Your task to perform on an android device: move a message to another label in the gmail app Image 0: 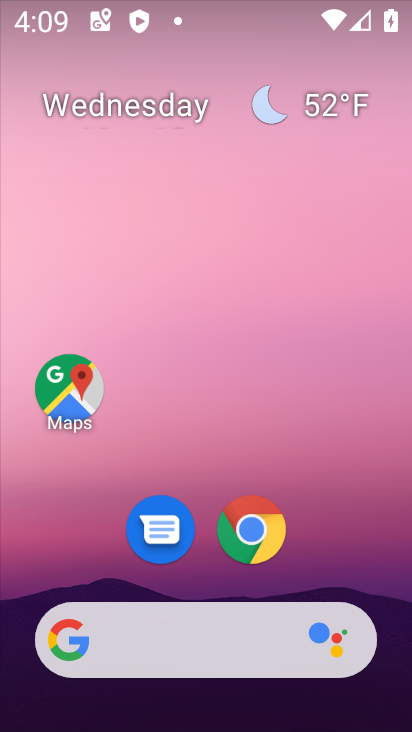
Step 0: drag from (325, 556) to (159, 143)
Your task to perform on an android device: move a message to another label in the gmail app Image 1: 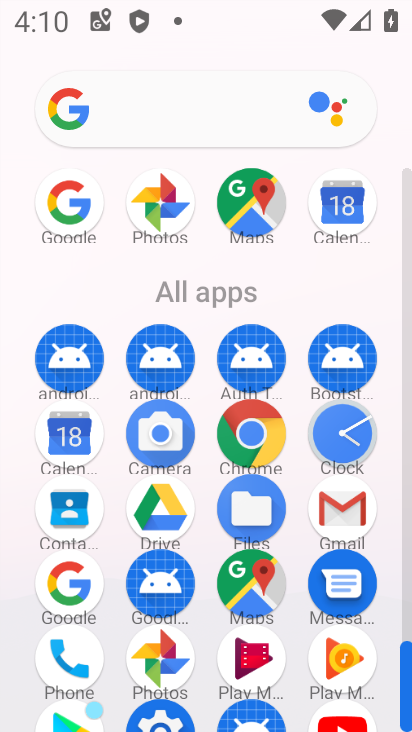
Step 1: drag from (211, 539) to (218, 343)
Your task to perform on an android device: move a message to another label in the gmail app Image 2: 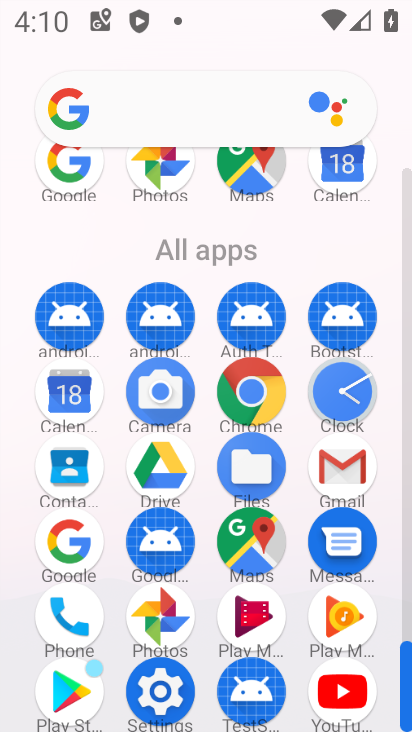
Step 2: click (342, 463)
Your task to perform on an android device: move a message to another label in the gmail app Image 3: 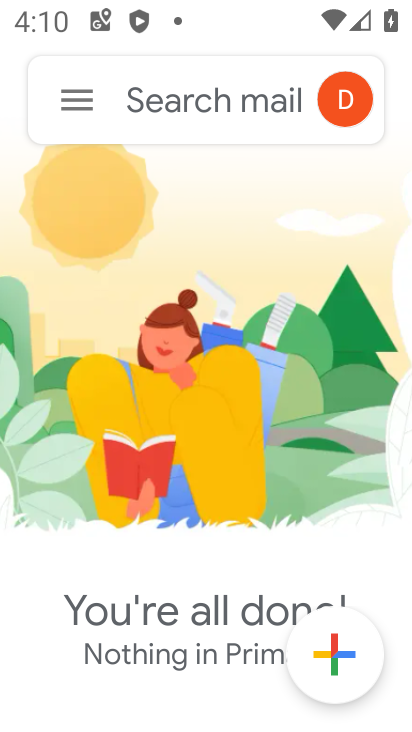
Step 3: click (76, 107)
Your task to perform on an android device: move a message to another label in the gmail app Image 4: 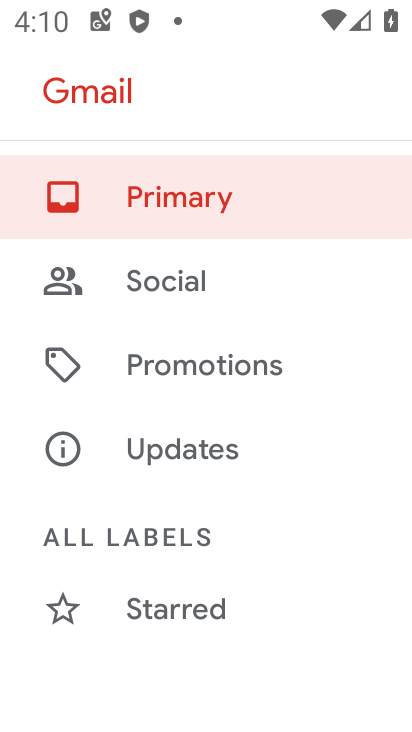
Step 4: drag from (191, 427) to (238, 304)
Your task to perform on an android device: move a message to another label in the gmail app Image 5: 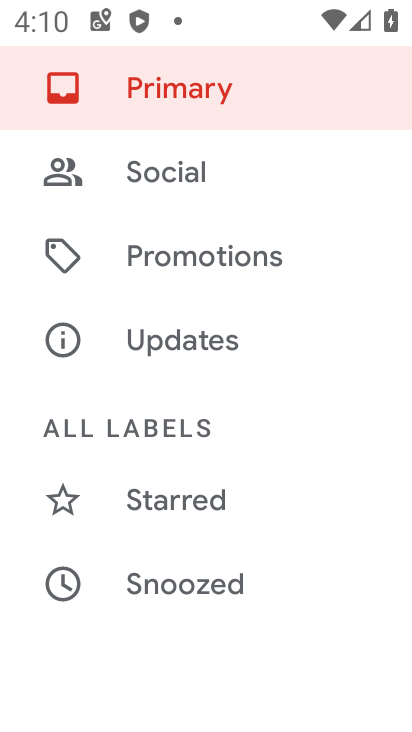
Step 5: drag from (178, 483) to (210, 421)
Your task to perform on an android device: move a message to another label in the gmail app Image 6: 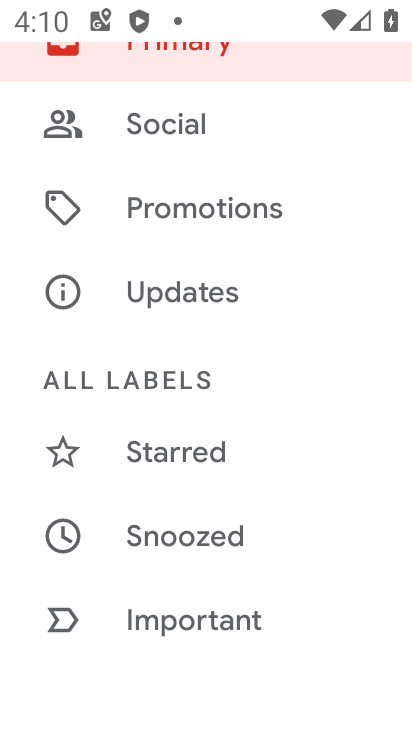
Step 6: drag from (186, 501) to (233, 410)
Your task to perform on an android device: move a message to another label in the gmail app Image 7: 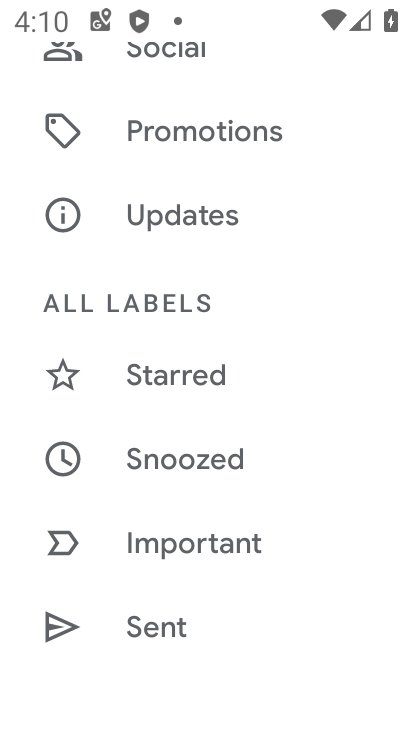
Step 7: drag from (186, 550) to (222, 480)
Your task to perform on an android device: move a message to another label in the gmail app Image 8: 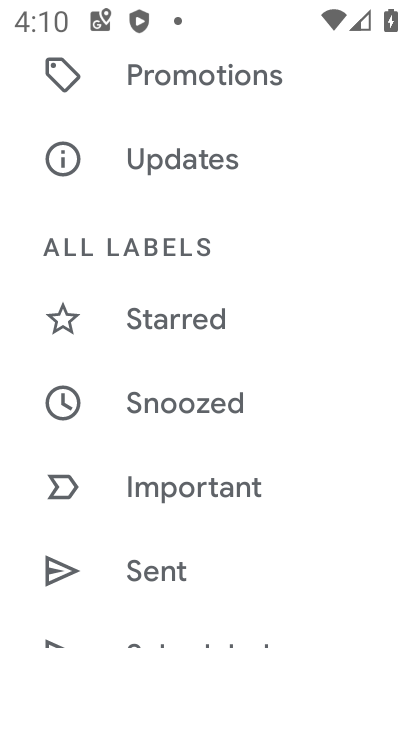
Step 8: drag from (154, 527) to (208, 401)
Your task to perform on an android device: move a message to another label in the gmail app Image 9: 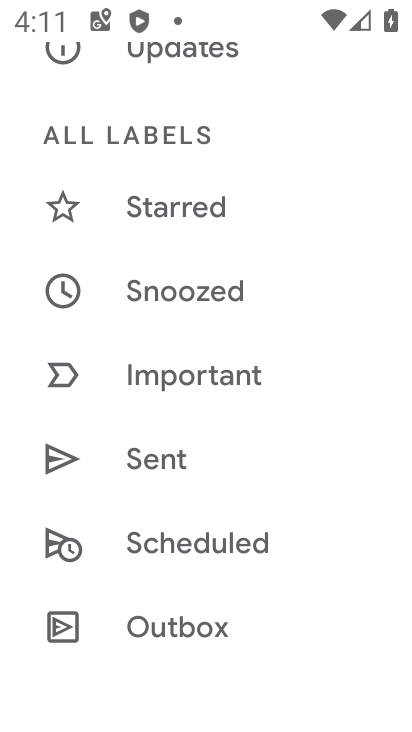
Step 9: drag from (164, 501) to (223, 338)
Your task to perform on an android device: move a message to another label in the gmail app Image 10: 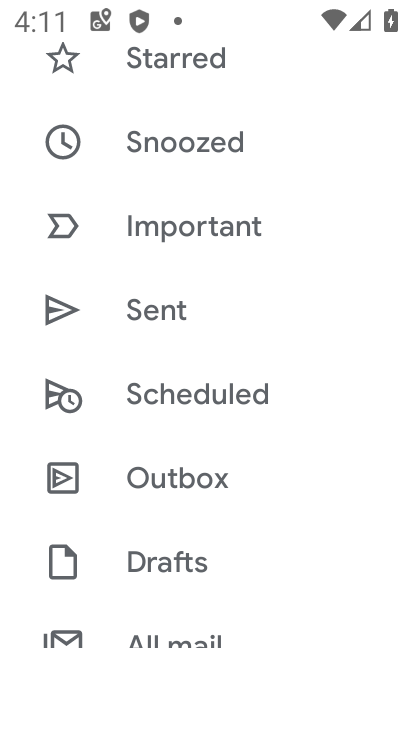
Step 10: drag from (193, 463) to (230, 378)
Your task to perform on an android device: move a message to another label in the gmail app Image 11: 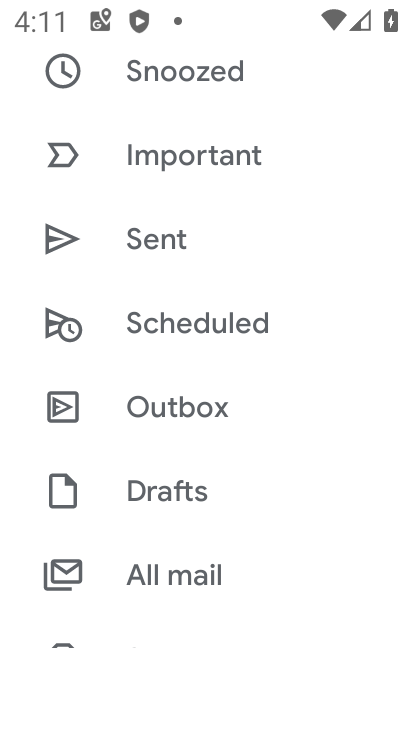
Step 11: click (172, 576)
Your task to perform on an android device: move a message to another label in the gmail app Image 12: 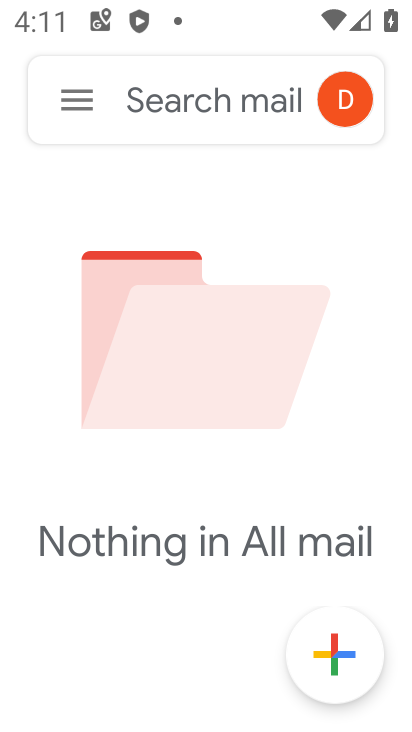
Step 12: task complete